Your task to perform on an android device: Open Youtube and go to "Your channel" Image 0: 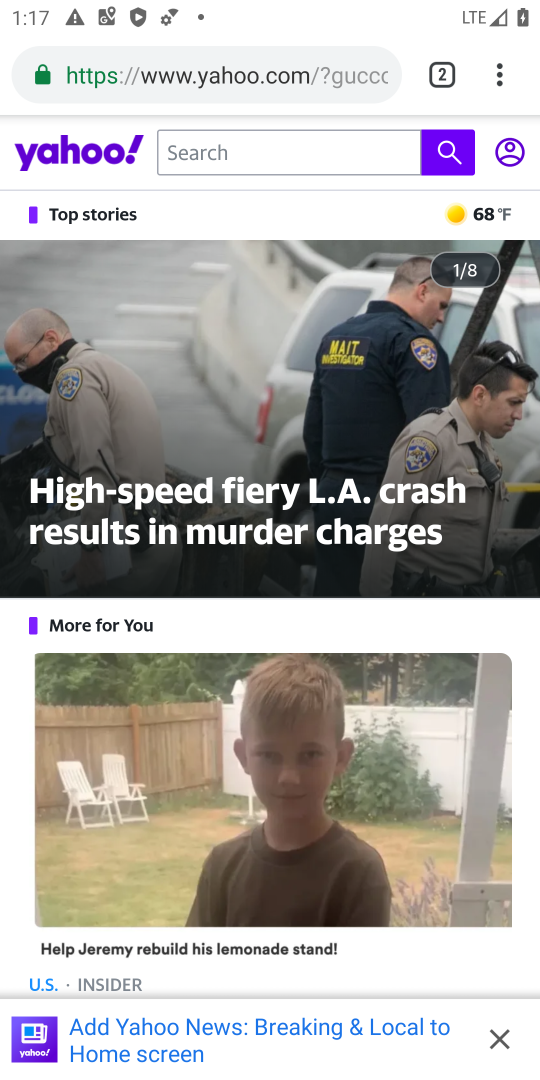
Step 0: press home button
Your task to perform on an android device: Open Youtube and go to "Your channel" Image 1: 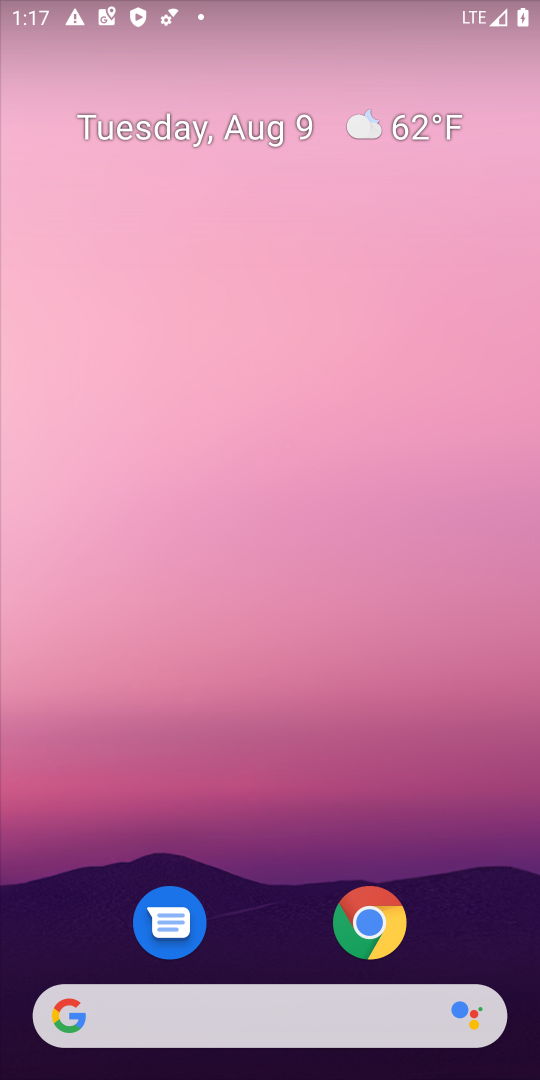
Step 1: drag from (302, 957) to (190, 93)
Your task to perform on an android device: Open Youtube and go to "Your channel" Image 2: 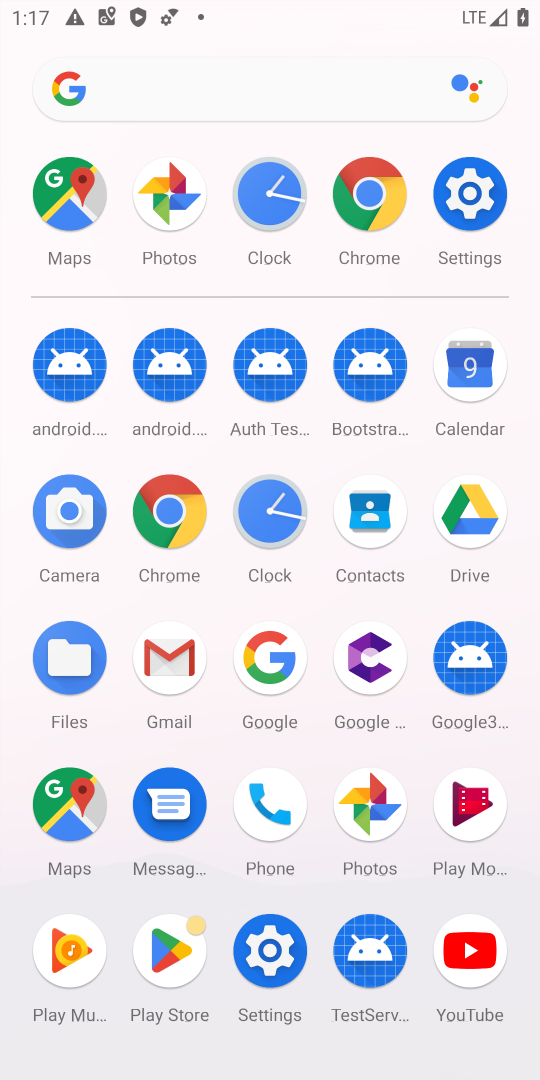
Step 2: click (468, 951)
Your task to perform on an android device: Open Youtube and go to "Your channel" Image 3: 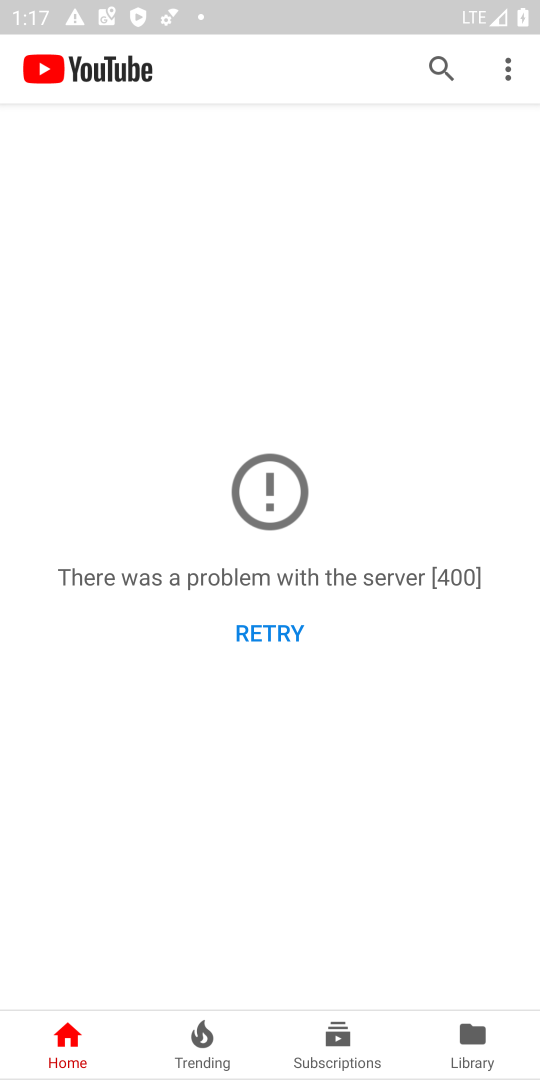
Step 3: click (507, 71)
Your task to perform on an android device: Open Youtube and go to "Your channel" Image 4: 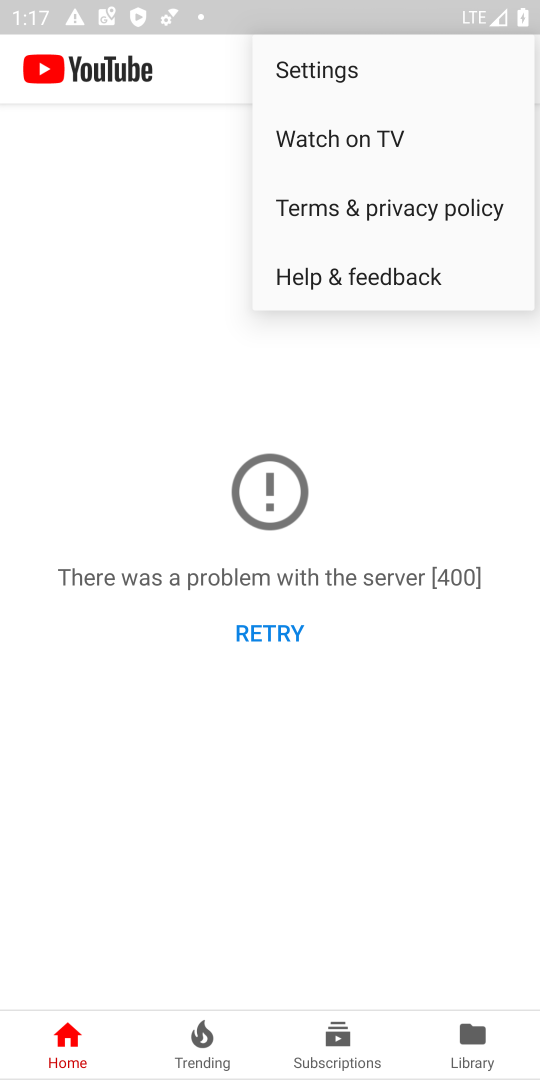
Step 4: click (360, 62)
Your task to perform on an android device: Open Youtube and go to "Your channel" Image 5: 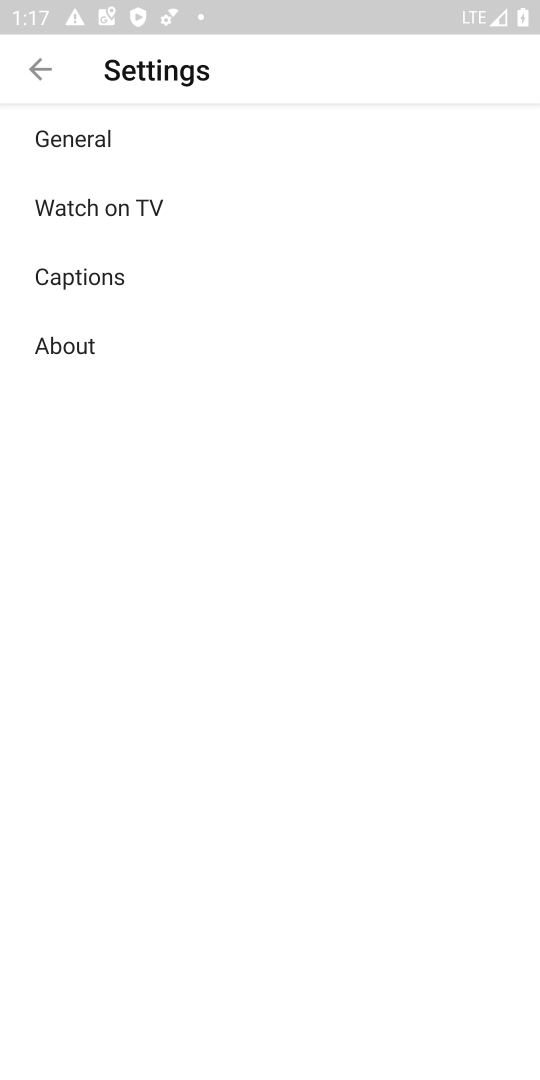
Step 5: task complete